Your task to perform on an android device: Go to ESPN.com Image 0: 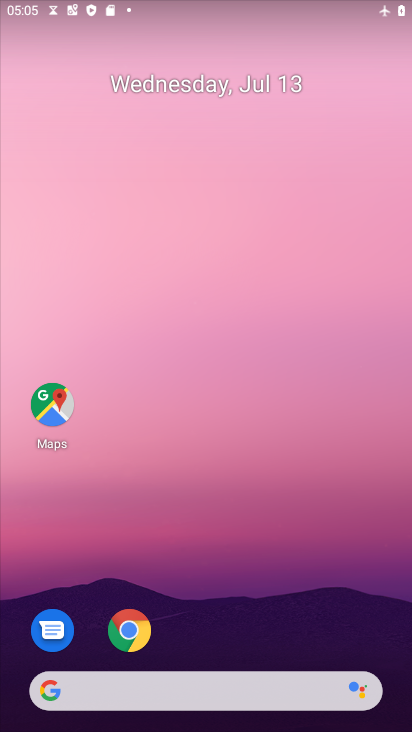
Step 0: drag from (301, 687) to (410, 155)
Your task to perform on an android device: Go to ESPN.com Image 1: 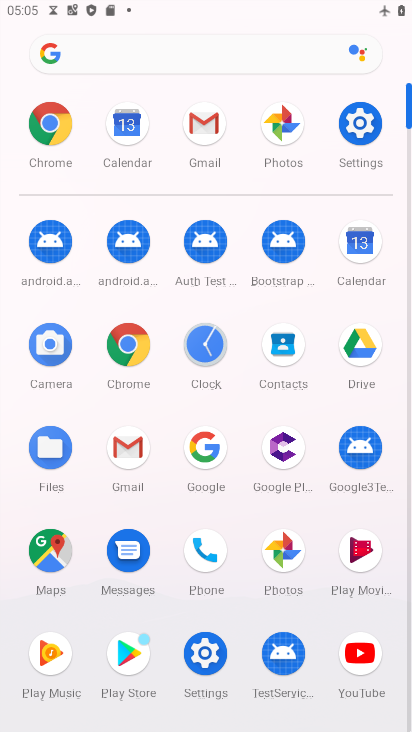
Step 1: click (149, 350)
Your task to perform on an android device: Go to ESPN.com Image 2: 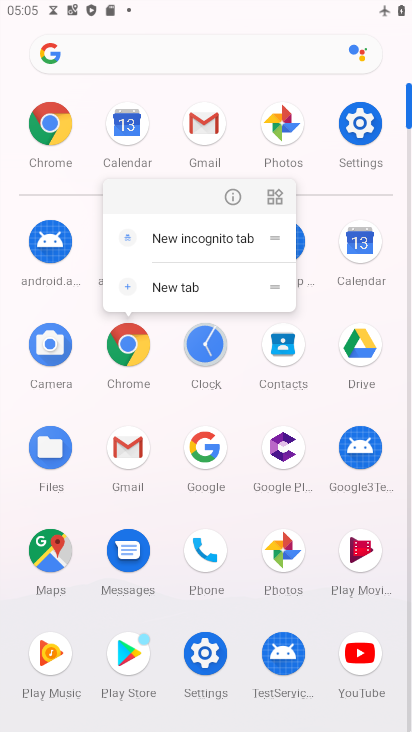
Step 2: click (146, 343)
Your task to perform on an android device: Go to ESPN.com Image 3: 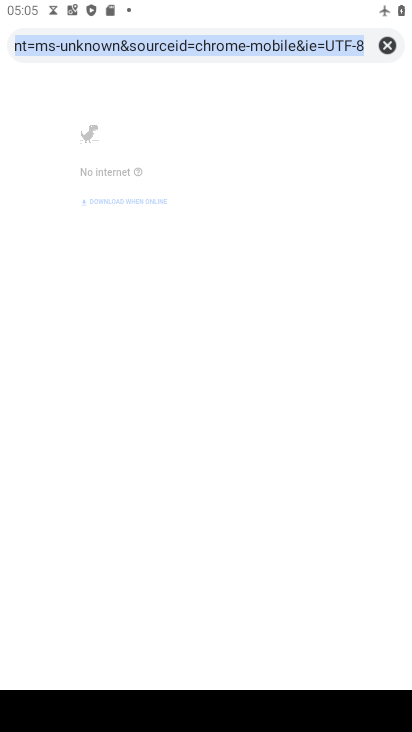
Step 3: type "espn.com"
Your task to perform on an android device: Go to ESPN.com Image 4: 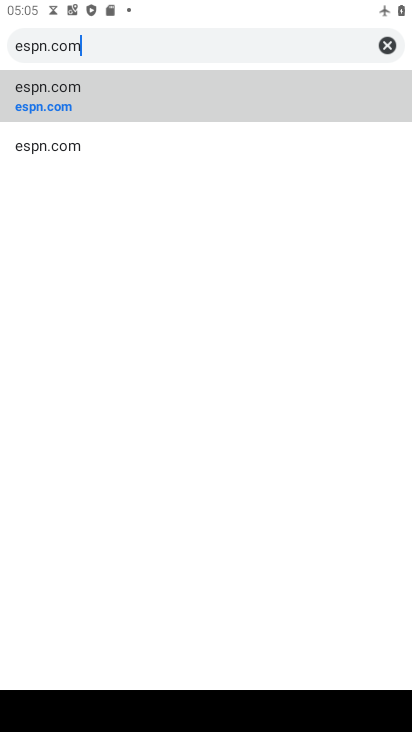
Step 4: click (153, 109)
Your task to perform on an android device: Go to ESPN.com Image 5: 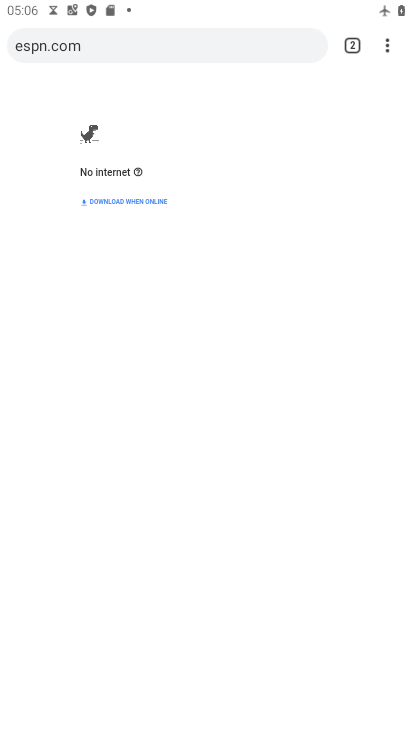
Step 5: drag from (299, 30) to (356, 677)
Your task to perform on an android device: Go to ESPN.com Image 6: 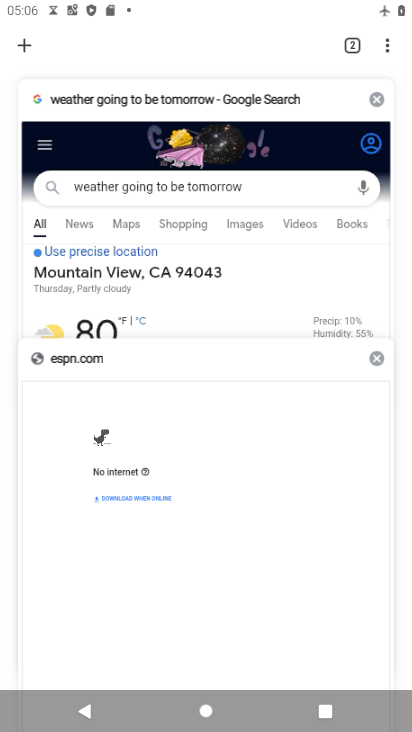
Step 6: drag from (269, 11) to (281, 520)
Your task to perform on an android device: Go to ESPN.com Image 7: 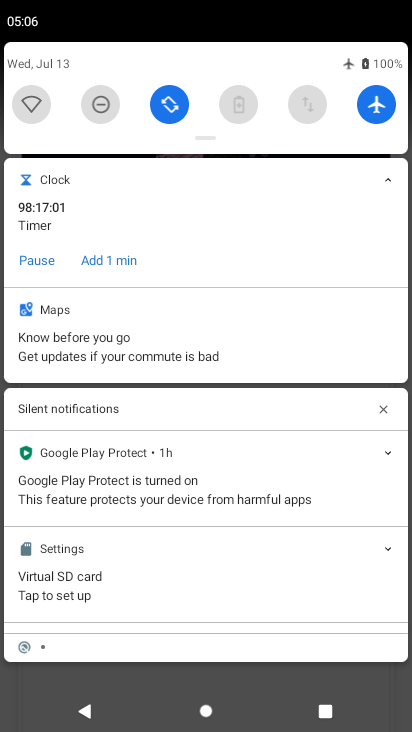
Step 7: click (361, 99)
Your task to perform on an android device: Go to ESPN.com Image 8: 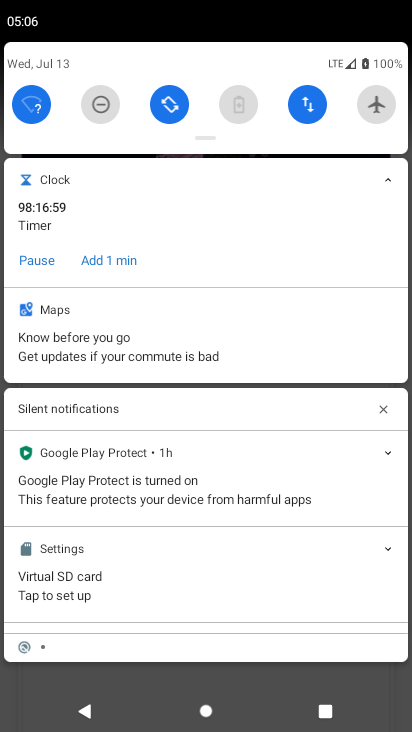
Step 8: task complete